Your task to perform on an android device: allow cookies in the chrome app Image 0: 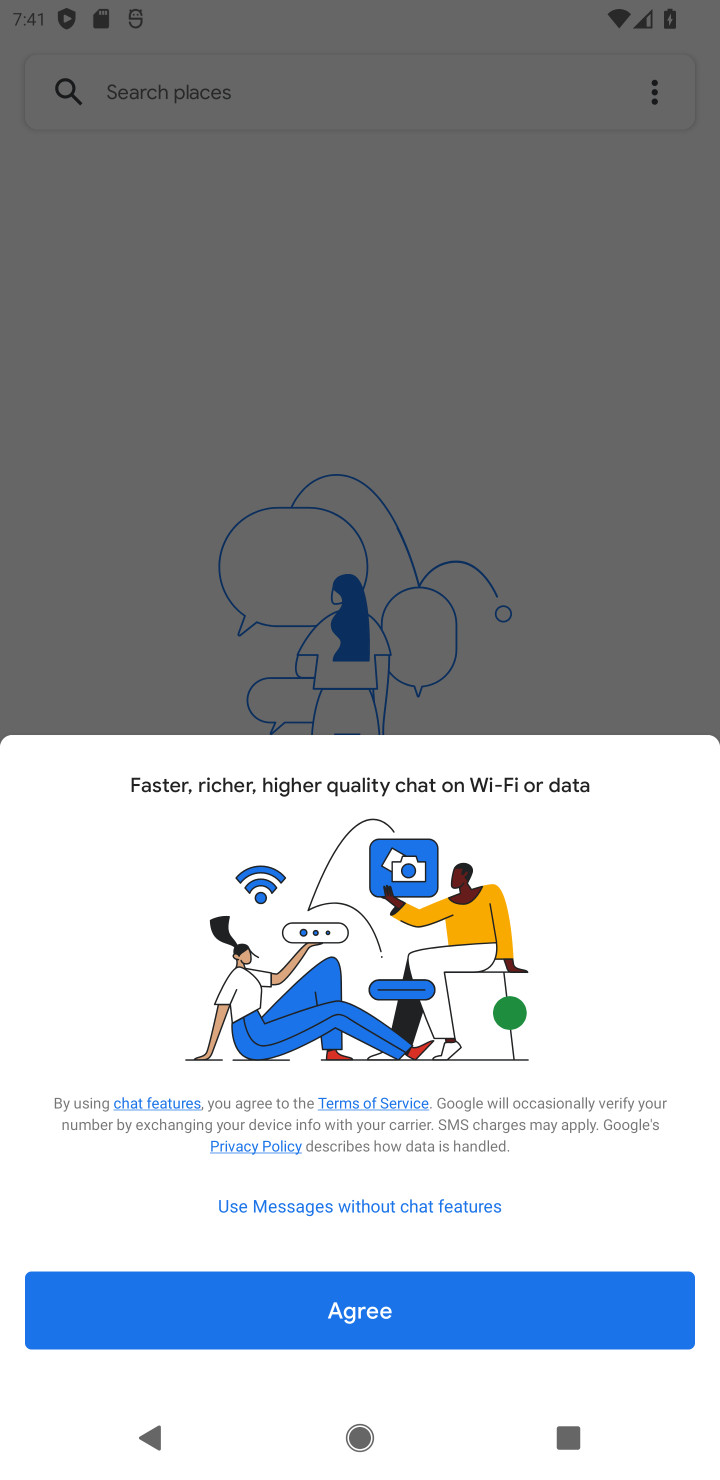
Step 0: press home button
Your task to perform on an android device: allow cookies in the chrome app Image 1: 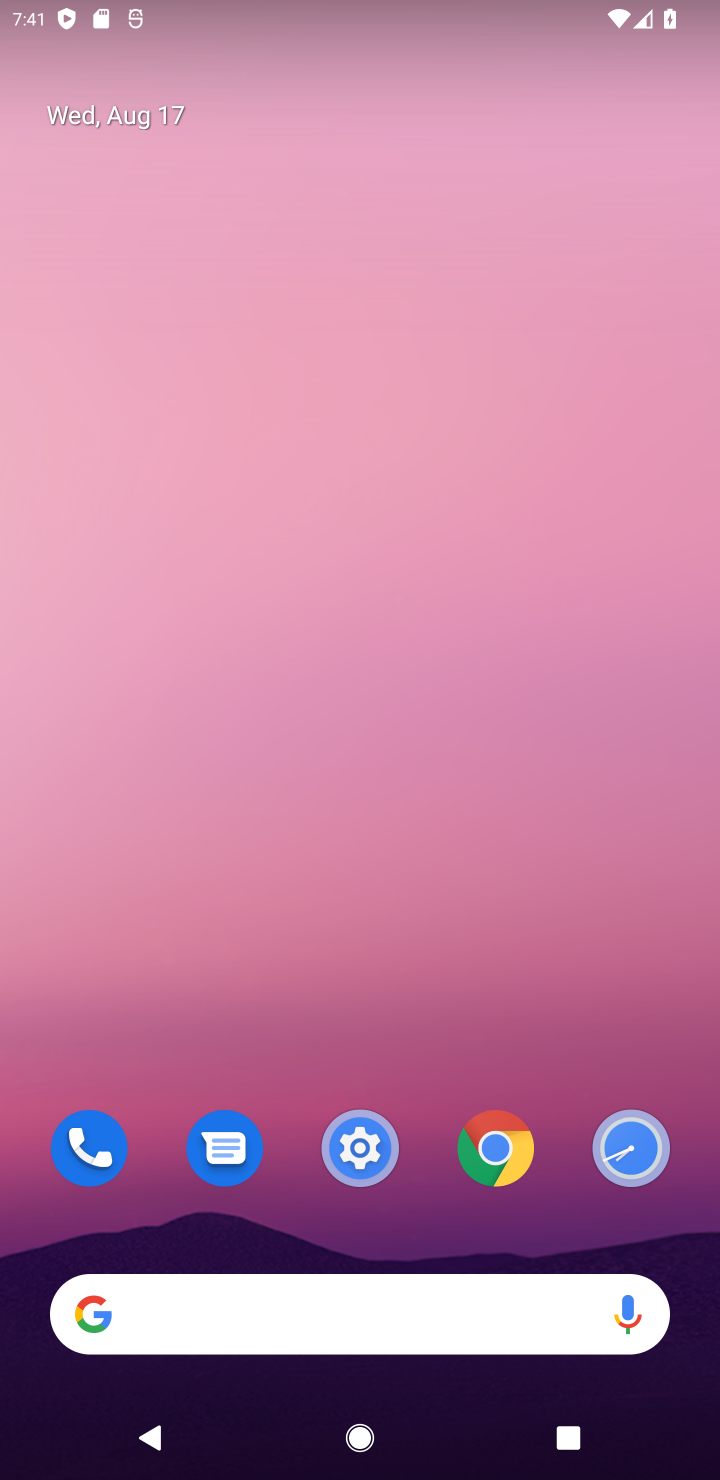
Step 1: click (499, 1143)
Your task to perform on an android device: allow cookies in the chrome app Image 2: 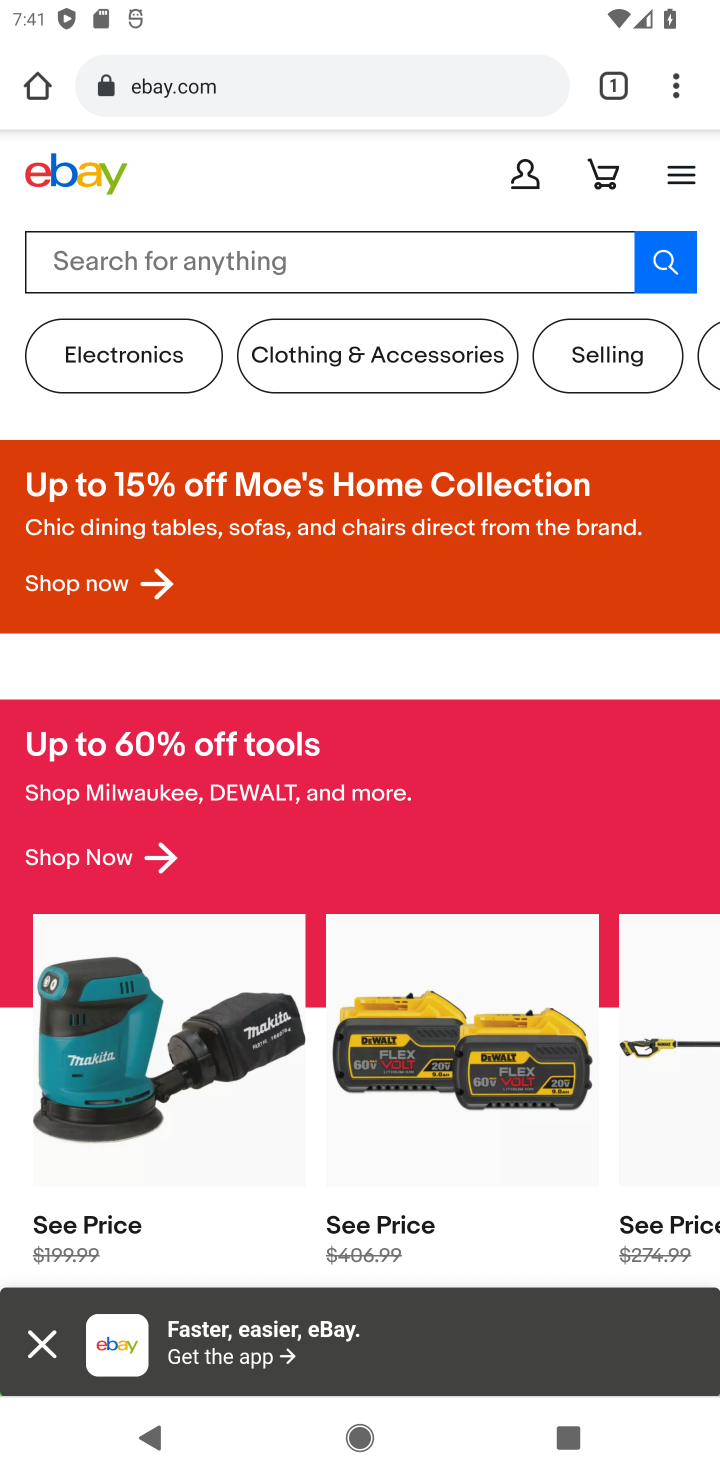
Step 2: click (677, 76)
Your task to perform on an android device: allow cookies in the chrome app Image 3: 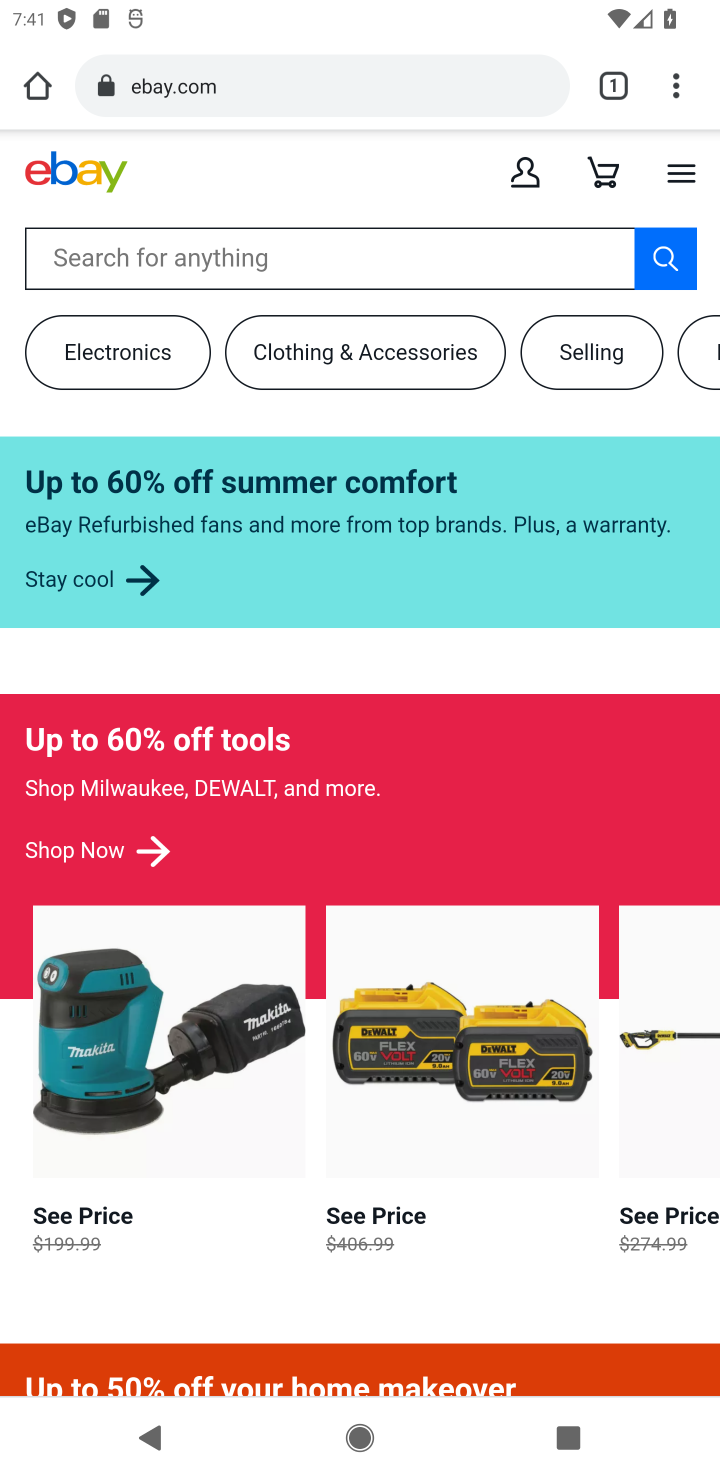
Step 3: click (670, 96)
Your task to perform on an android device: allow cookies in the chrome app Image 4: 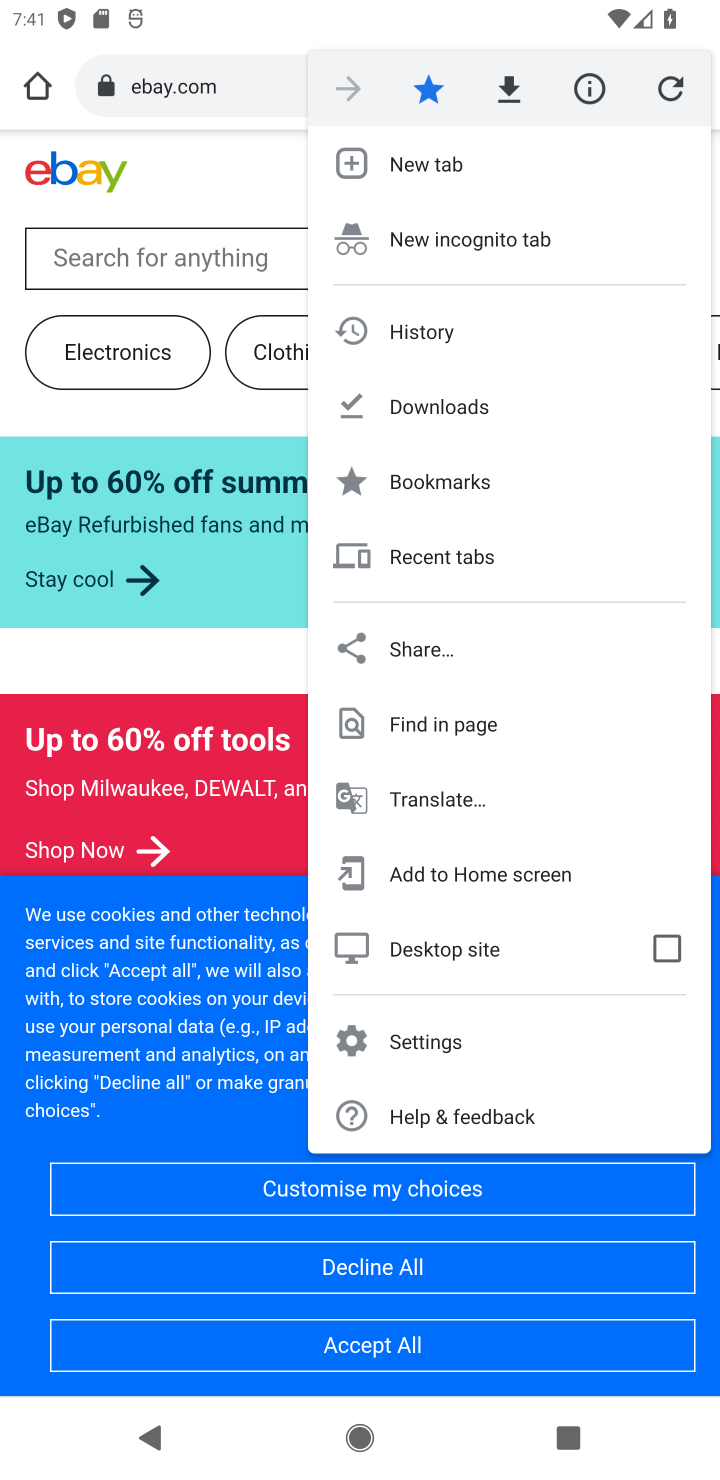
Step 4: click (440, 1038)
Your task to perform on an android device: allow cookies in the chrome app Image 5: 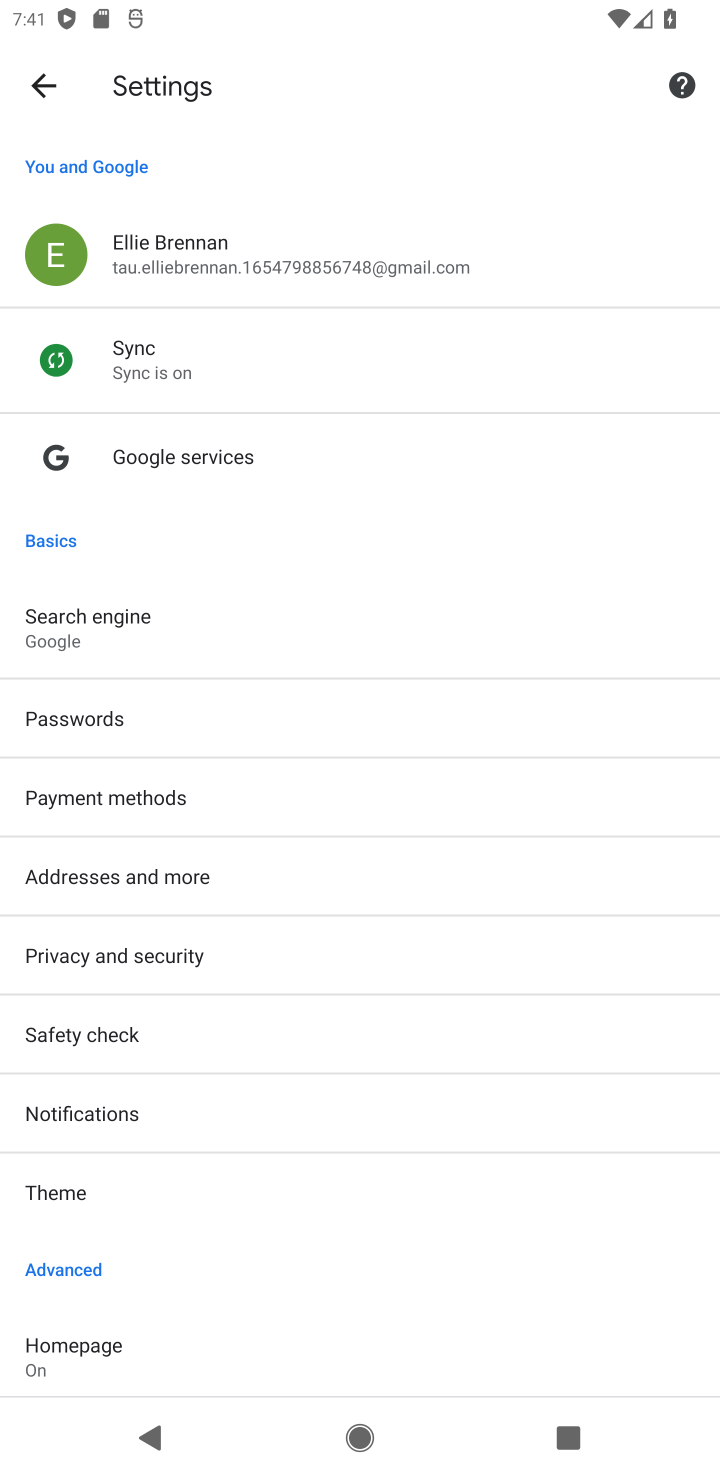
Step 5: drag from (152, 1203) to (155, 599)
Your task to perform on an android device: allow cookies in the chrome app Image 6: 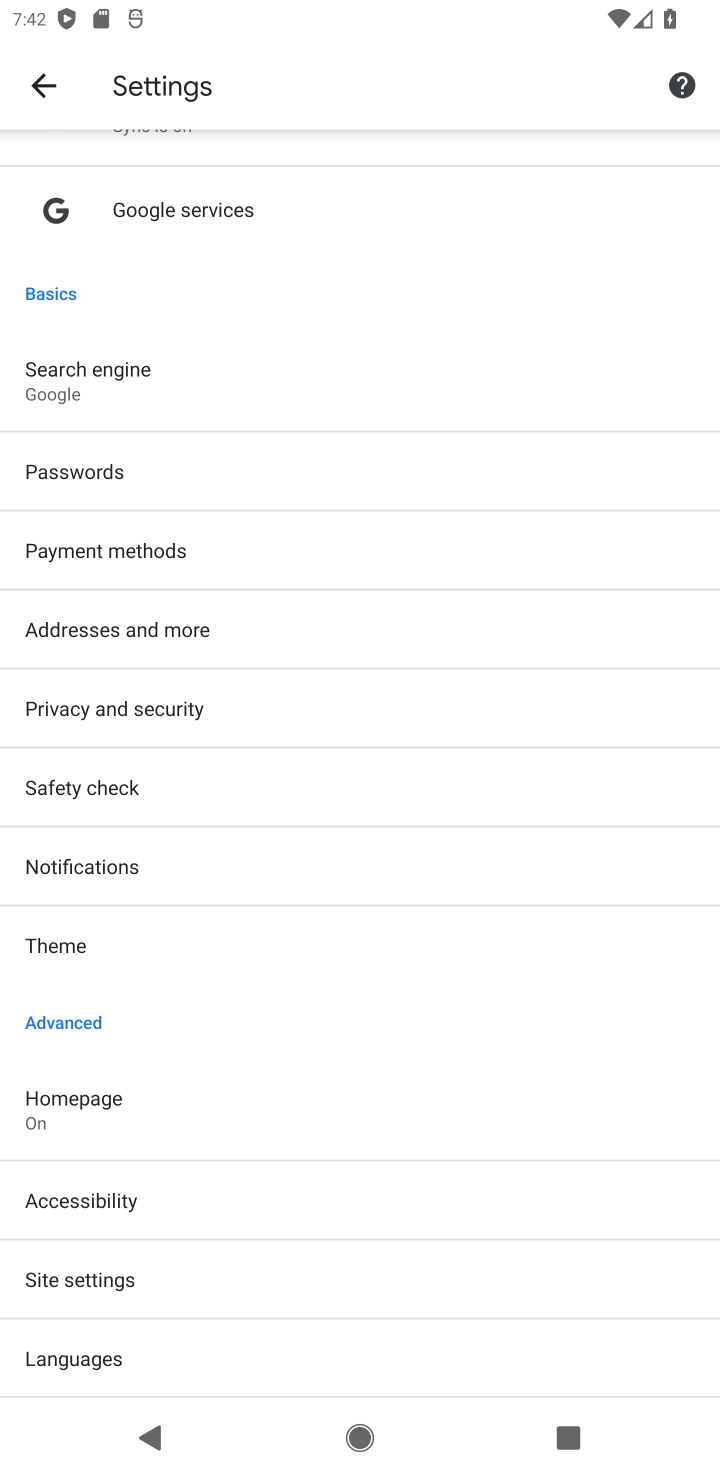
Step 6: click (106, 1262)
Your task to perform on an android device: allow cookies in the chrome app Image 7: 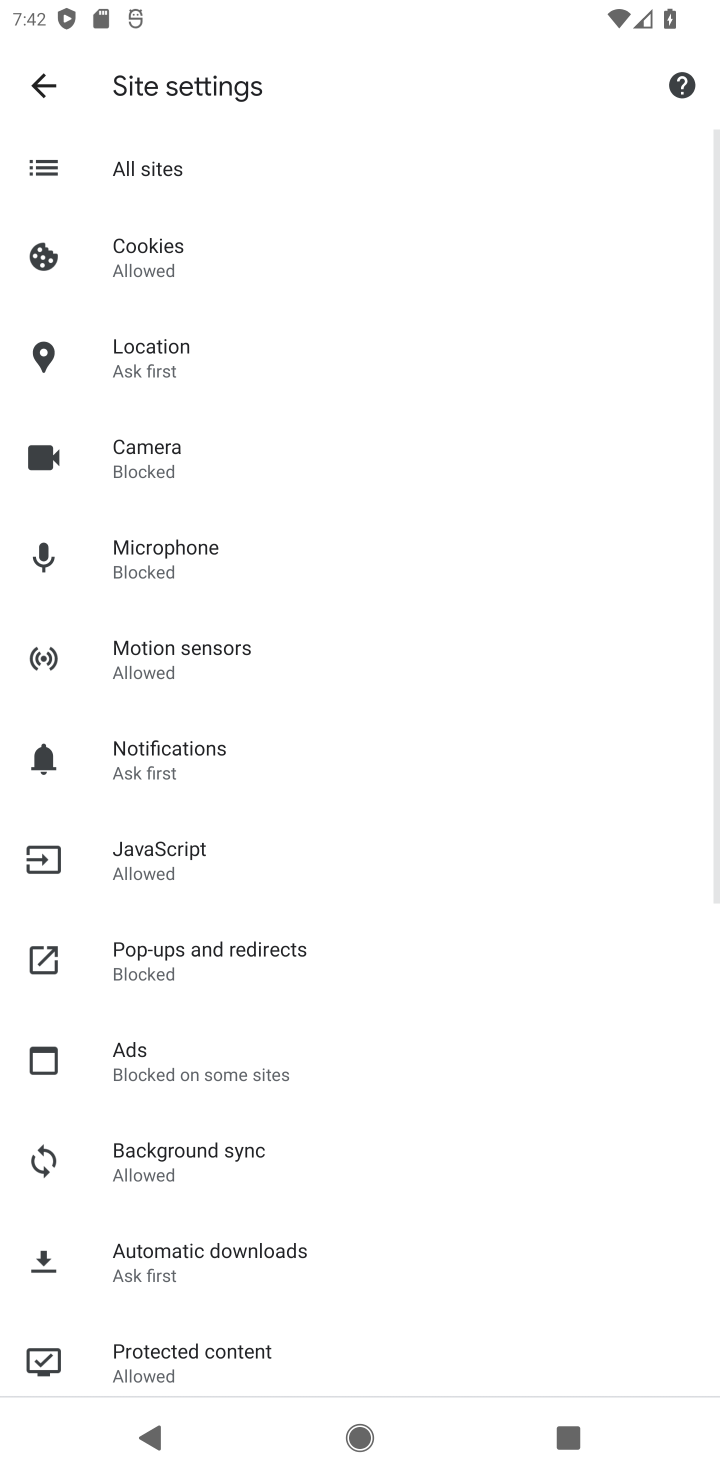
Step 7: click (183, 273)
Your task to perform on an android device: allow cookies in the chrome app Image 8: 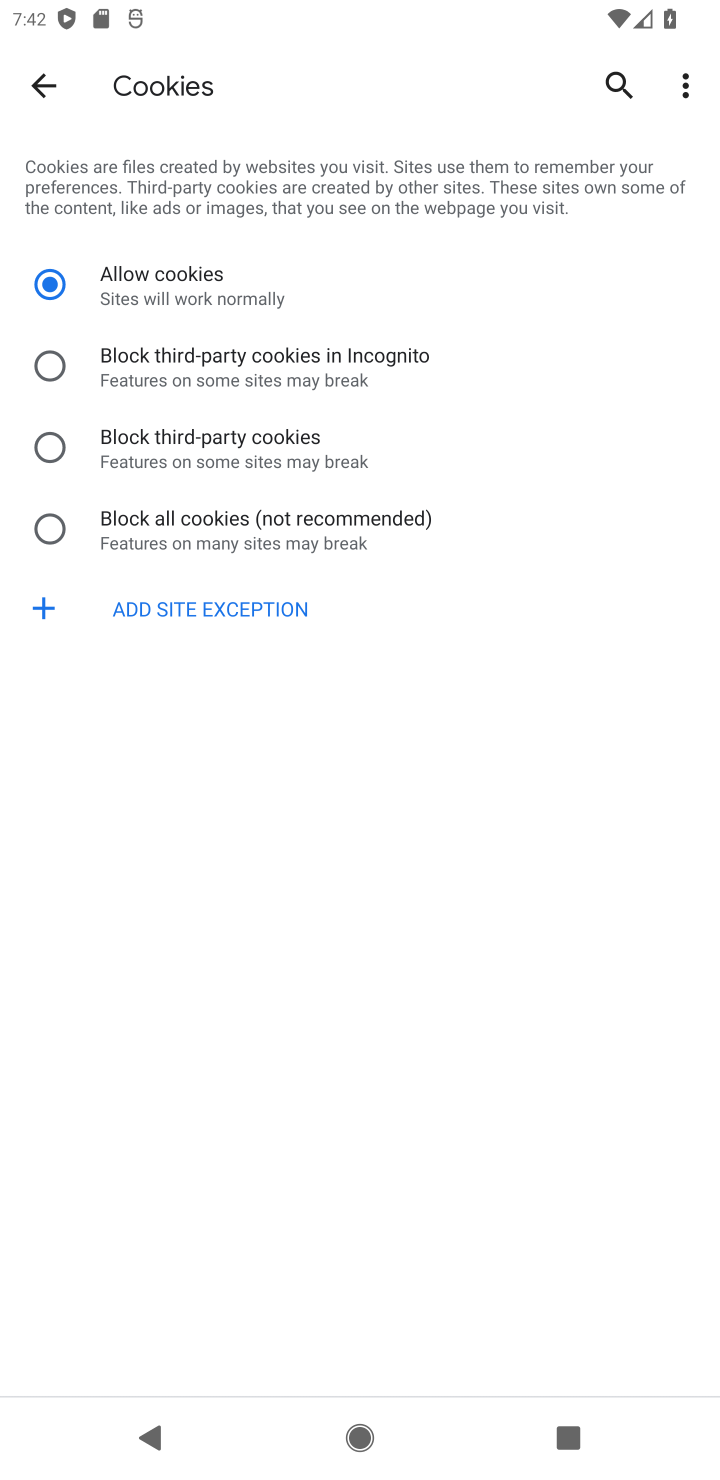
Step 8: task complete